Your task to perform on an android device: turn off wifi Image 0: 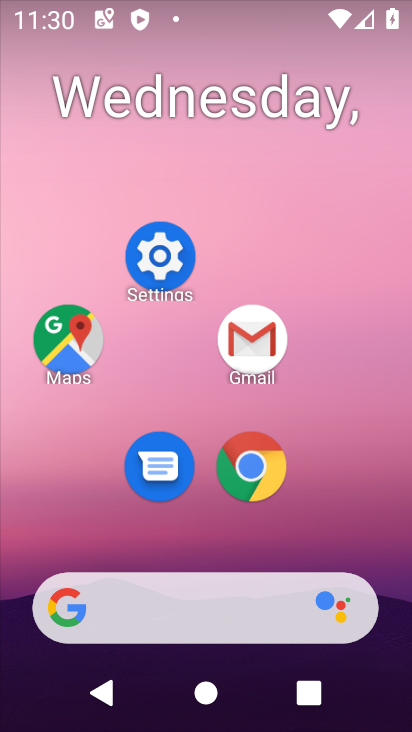
Step 0: drag from (225, 344) to (264, 177)
Your task to perform on an android device: turn off wifi Image 1: 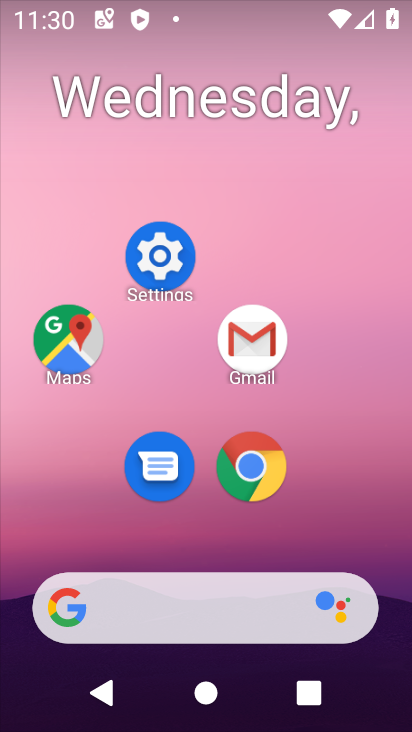
Step 1: drag from (212, 531) to (222, 176)
Your task to perform on an android device: turn off wifi Image 2: 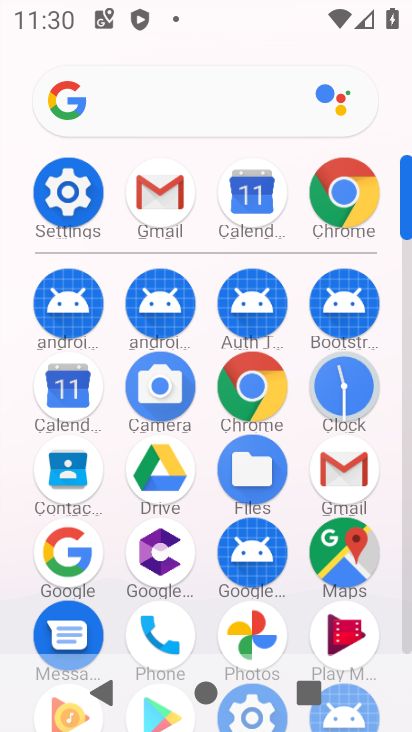
Step 2: click (66, 203)
Your task to perform on an android device: turn off wifi Image 3: 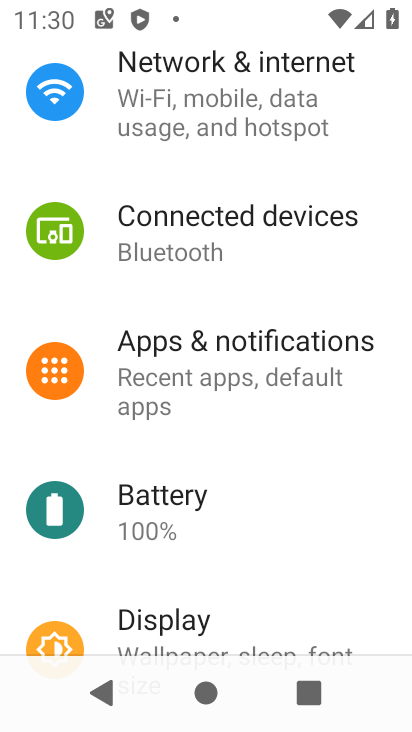
Step 3: drag from (271, 556) to (321, 131)
Your task to perform on an android device: turn off wifi Image 4: 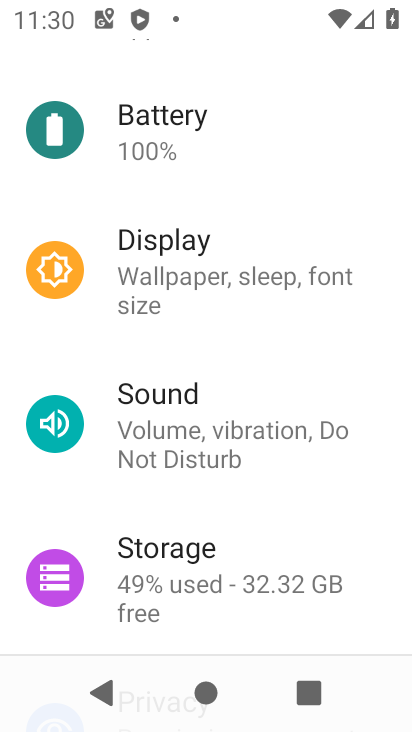
Step 4: drag from (244, 153) to (306, 673)
Your task to perform on an android device: turn off wifi Image 5: 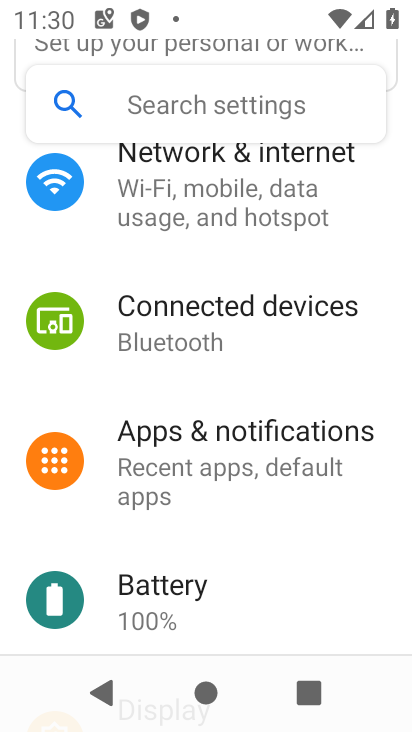
Step 5: drag from (190, 211) to (226, 463)
Your task to perform on an android device: turn off wifi Image 6: 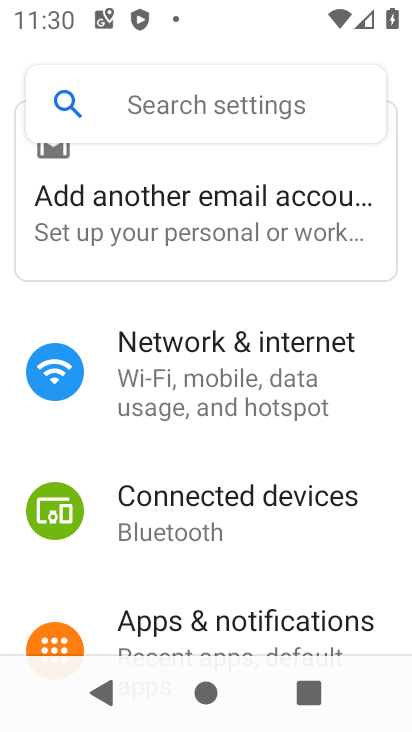
Step 6: click (207, 384)
Your task to perform on an android device: turn off wifi Image 7: 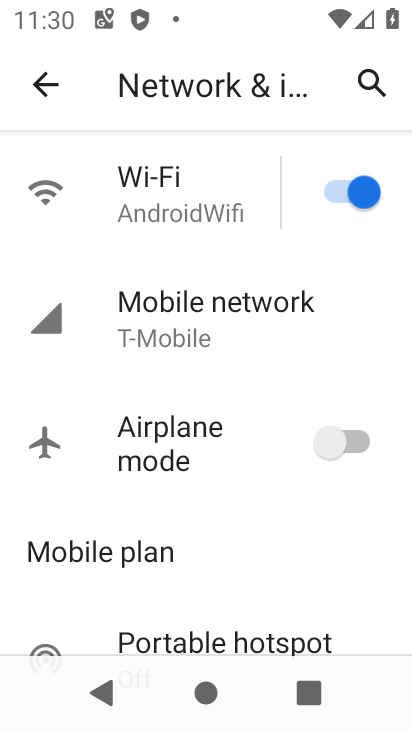
Step 7: click (226, 212)
Your task to perform on an android device: turn off wifi Image 8: 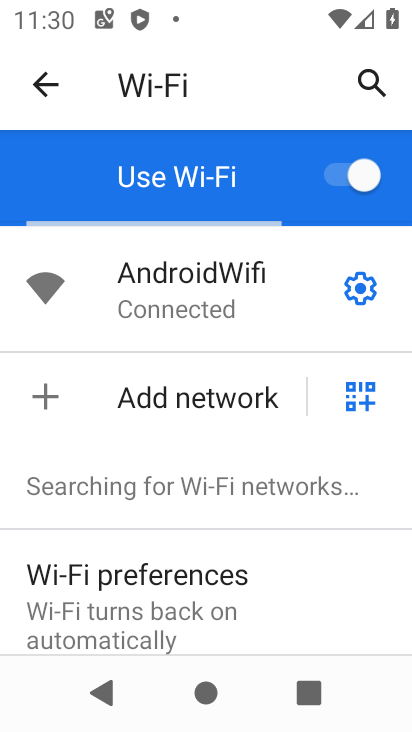
Step 8: click (368, 188)
Your task to perform on an android device: turn off wifi Image 9: 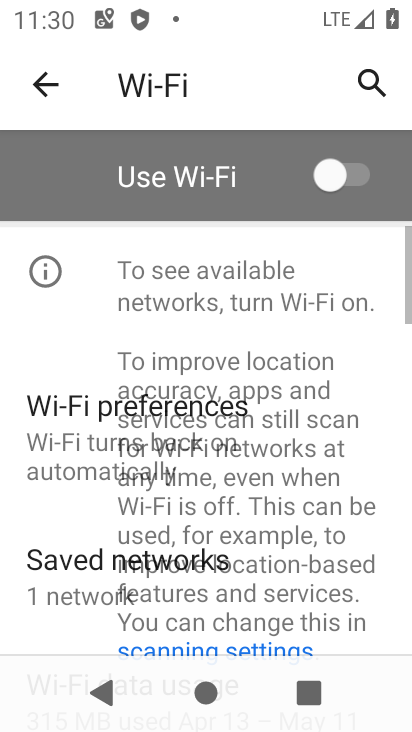
Step 9: task complete